Your task to perform on an android device: Open the map Image 0: 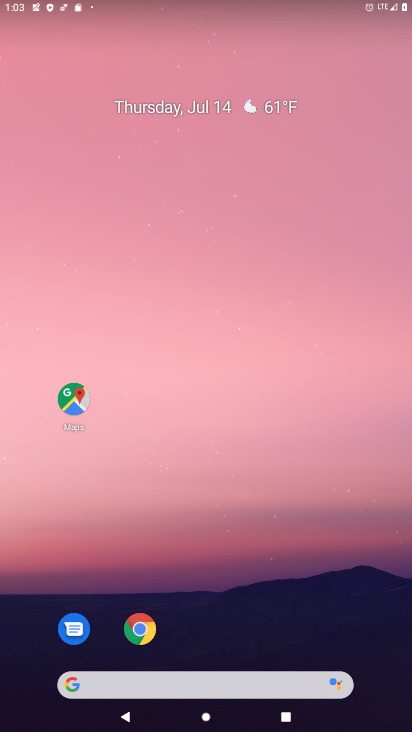
Step 0: click (65, 396)
Your task to perform on an android device: Open the map Image 1: 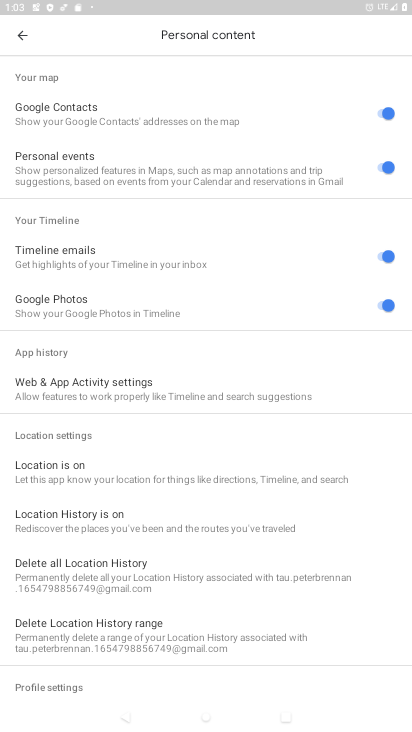
Step 1: click (21, 31)
Your task to perform on an android device: Open the map Image 2: 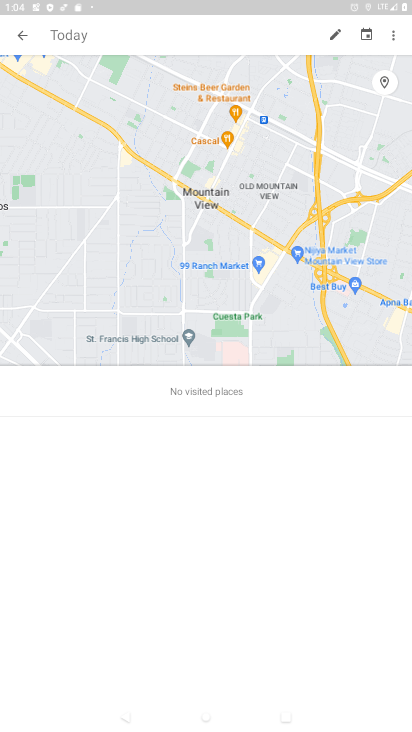
Step 2: task complete